Your task to perform on an android device: Search for Italian restaurants on Maps Image 0: 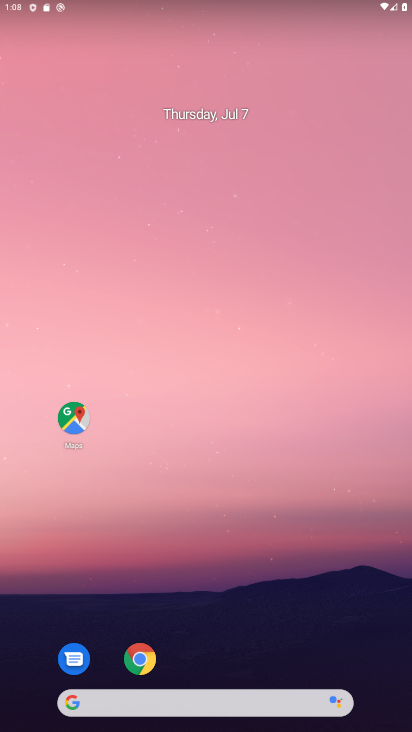
Step 0: click (60, 419)
Your task to perform on an android device: Search for Italian restaurants on Maps Image 1: 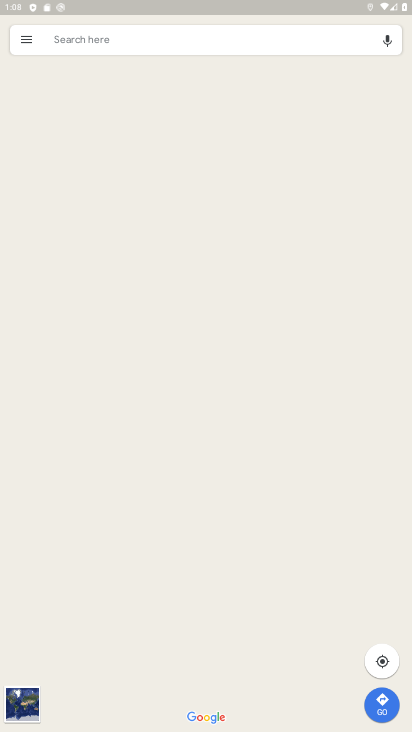
Step 1: click (74, 44)
Your task to perform on an android device: Search for Italian restaurants on Maps Image 2: 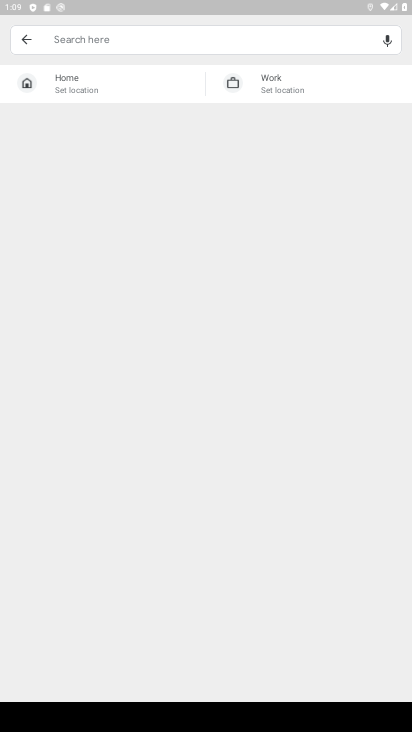
Step 2: type "Italian restaurants"
Your task to perform on an android device: Search for Italian restaurants on Maps Image 3: 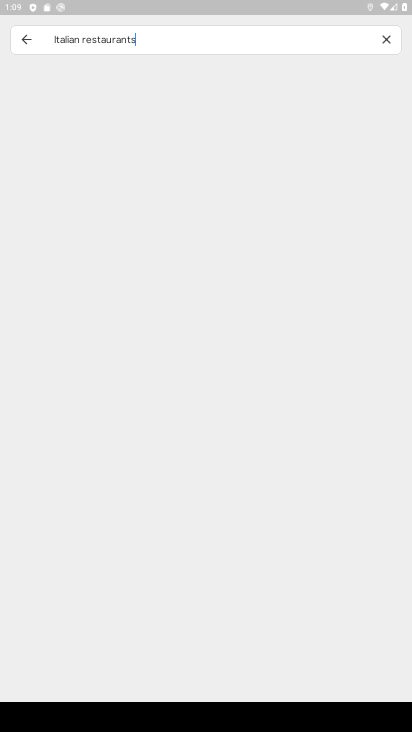
Step 3: press enter
Your task to perform on an android device: Search for Italian restaurants on Maps Image 4: 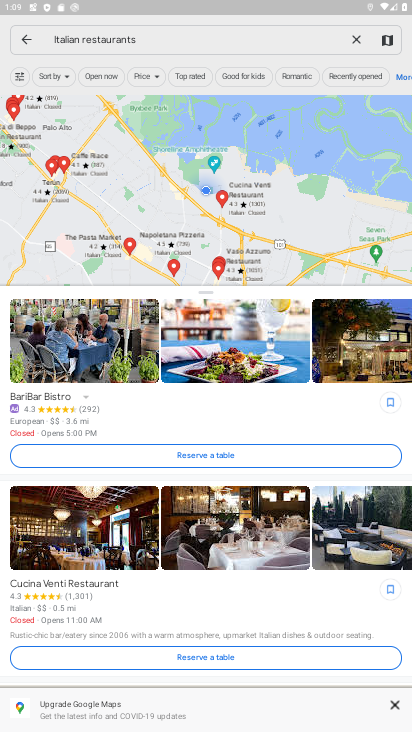
Step 4: task complete